Your task to perform on an android device: Open Maps and search for coffee Image 0: 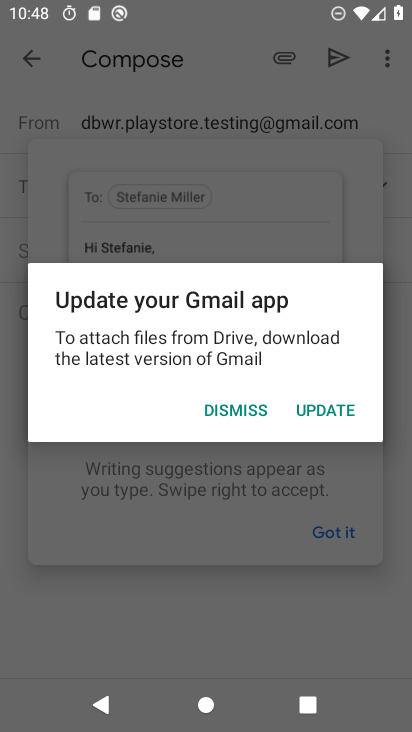
Step 0: press home button
Your task to perform on an android device: Open Maps and search for coffee Image 1: 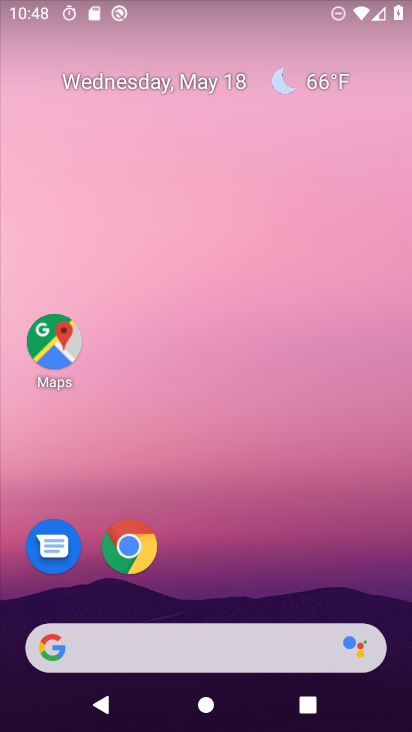
Step 1: click (42, 361)
Your task to perform on an android device: Open Maps and search for coffee Image 2: 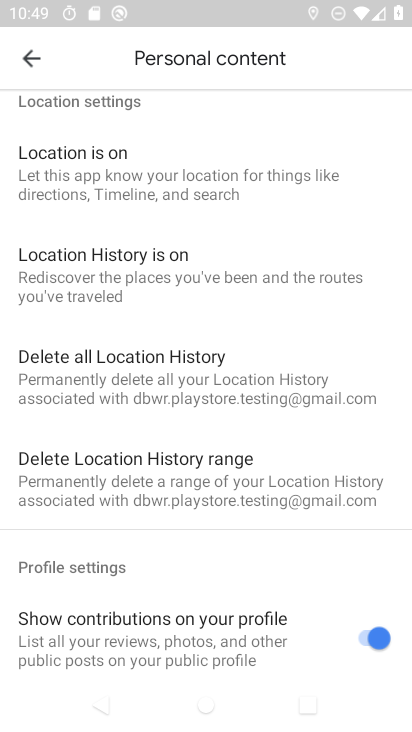
Step 2: click (22, 62)
Your task to perform on an android device: Open Maps and search for coffee Image 3: 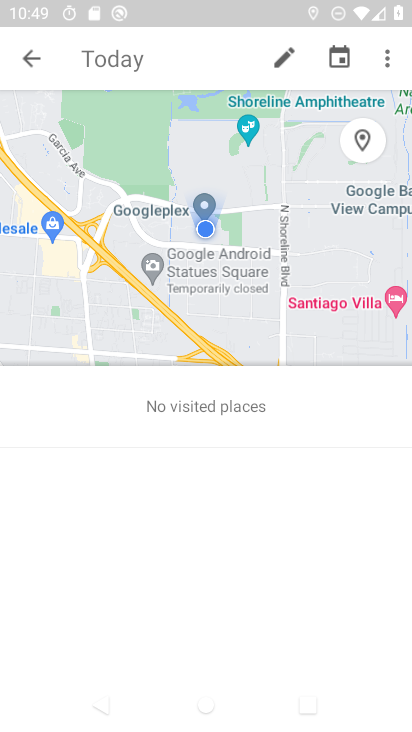
Step 3: click (36, 55)
Your task to perform on an android device: Open Maps and search for coffee Image 4: 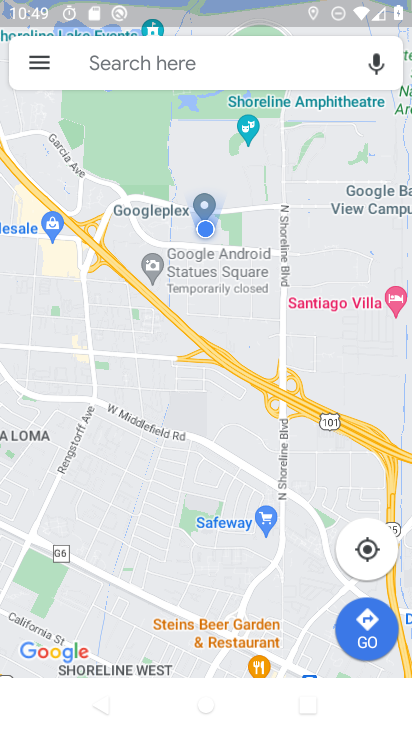
Step 4: click (138, 50)
Your task to perform on an android device: Open Maps and search for coffee Image 5: 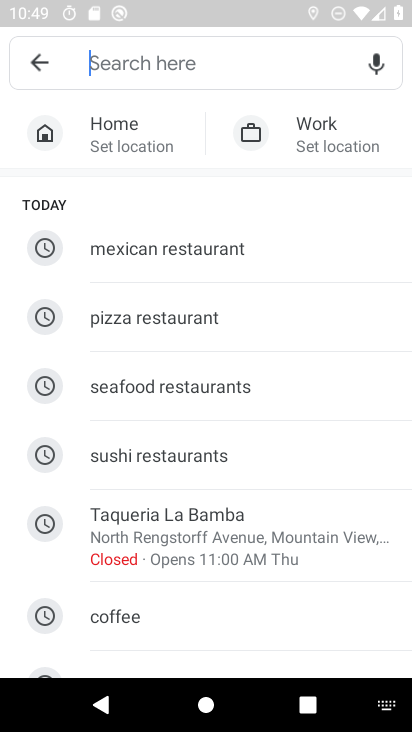
Step 5: click (161, 629)
Your task to perform on an android device: Open Maps and search for coffee Image 6: 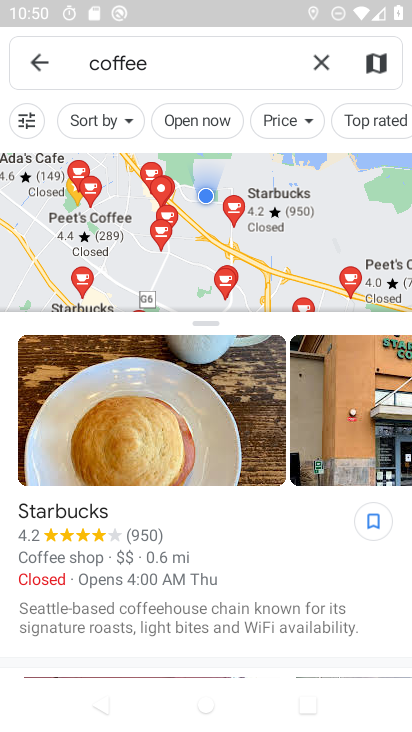
Step 6: task complete